Your task to perform on an android device: Play the last video I watched on Youtube Image 0: 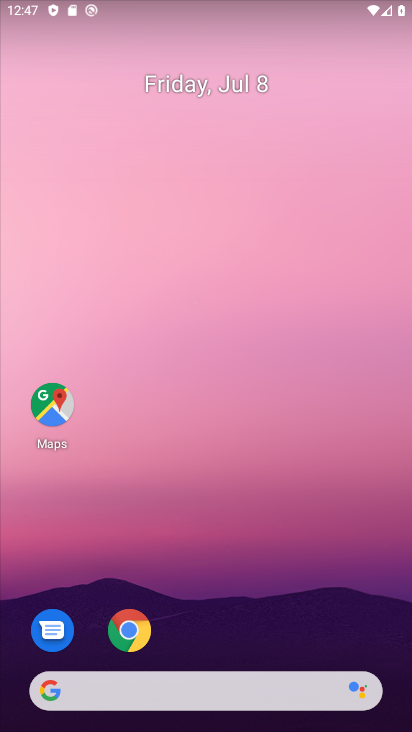
Step 0: press home button
Your task to perform on an android device: Play the last video I watched on Youtube Image 1: 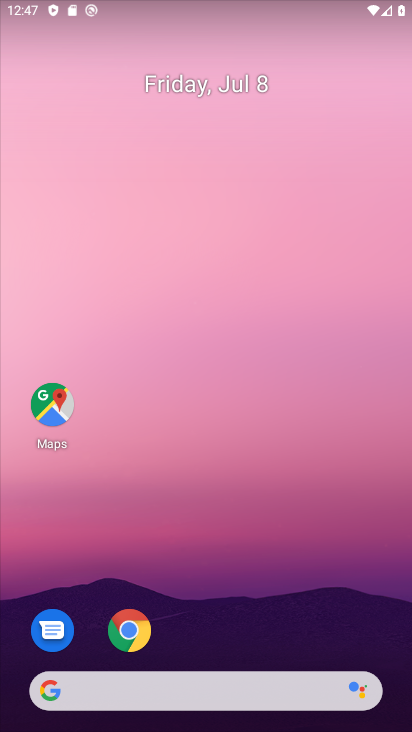
Step 1: drag from (256, 674) to (240, 153)
Your task to perform on an android device: Play the last video I watched on Youtube Image 2: 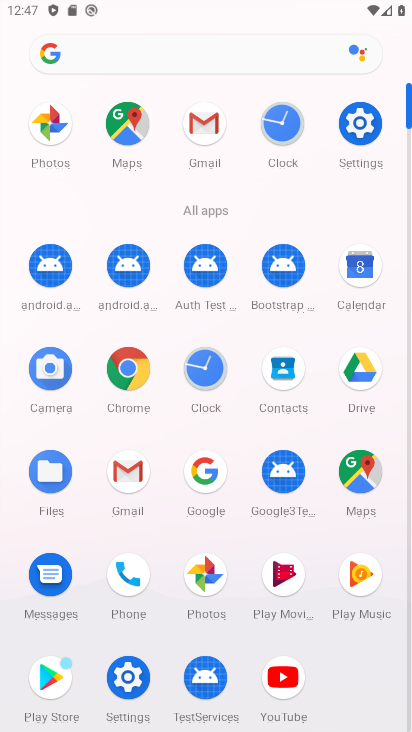
Step 2: click (271, 668)
Your task to perform on an android device: Play the last video I watched on Youtube Image 3: 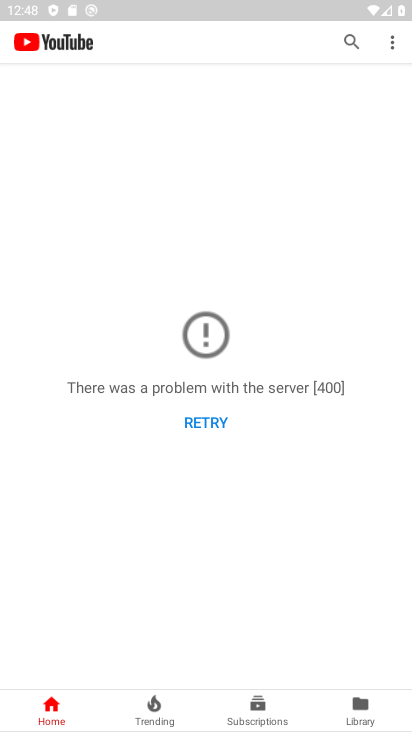
Step 3: click (198, 418)
Your task to perform on an android device: Play the last video I watched on Youtube Image 4: 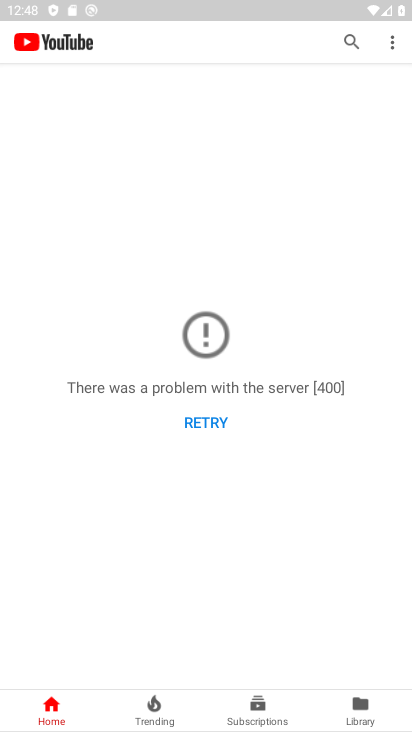
Step 4: task complete